Your task to perform on an android device: stop showing notifications on the lock screen Image 0: 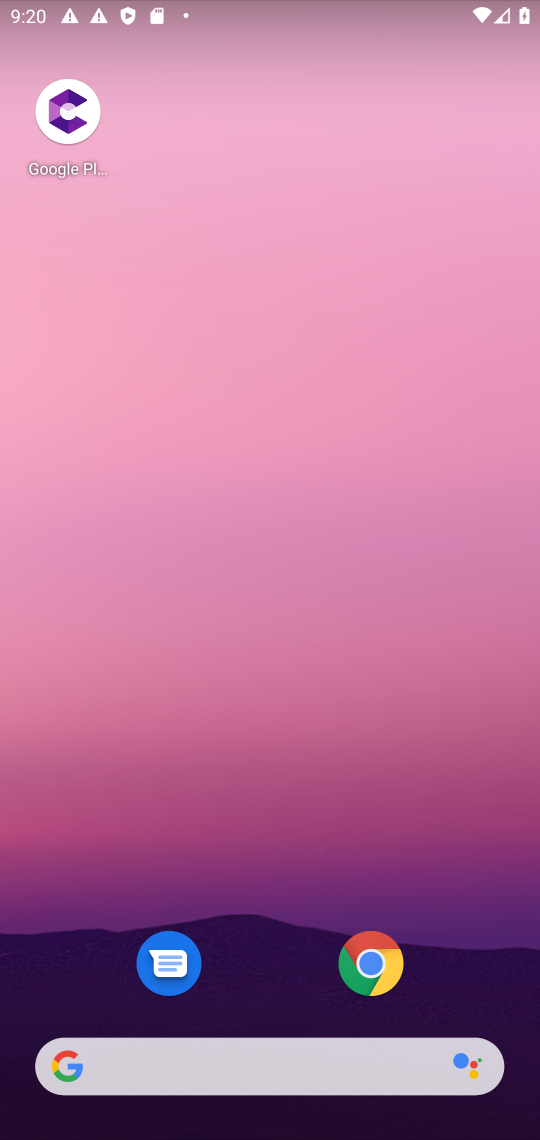
Step 0: drag from (280, 837) to (107, 27)
Your task to perform on an android device: stop showing notifications on the lock screen Image 1: 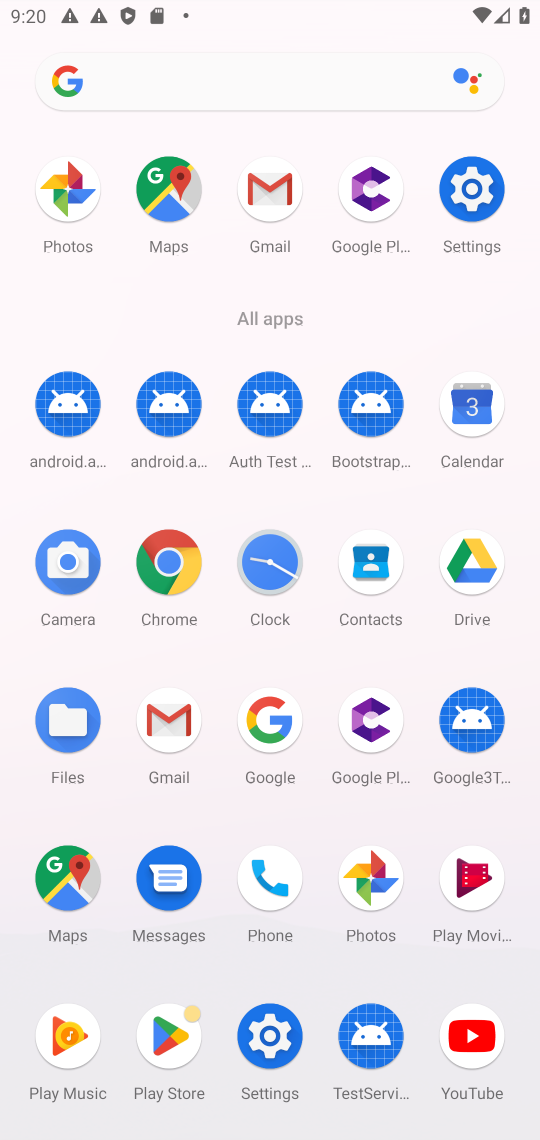
Step 1: click (459, 180)
Your task to perform on an android device: stop showing notifications on the lock screen Image 2: 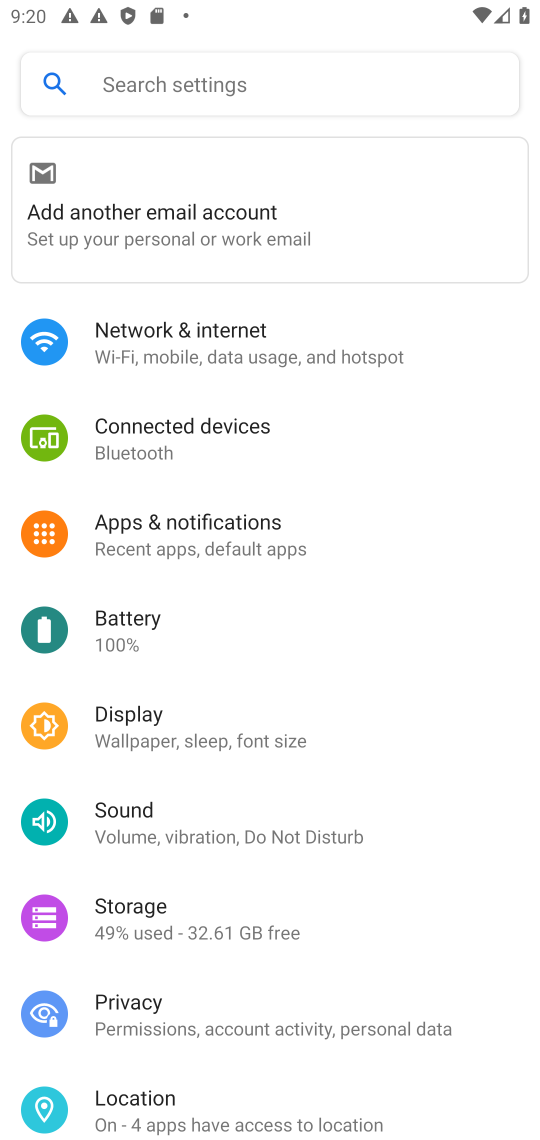
Step 2: click (248, 533)
Your task to perform on an android device: stop showing notifications on the lock screen Image 3: 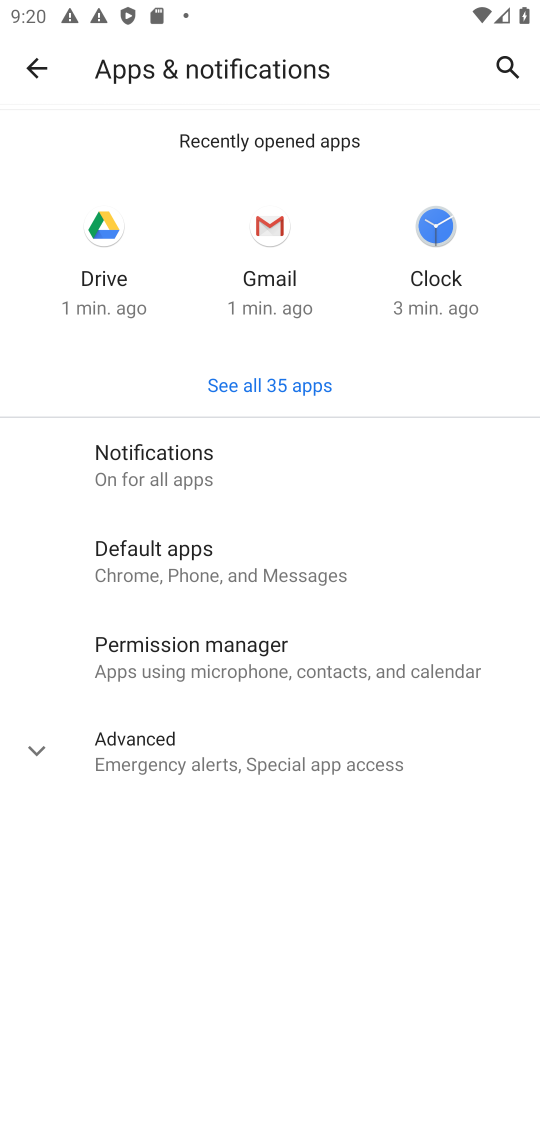
Step 3: click (300, 455)
Your task to perform on an android device: stop showing notifications on the lock screen Image 4: 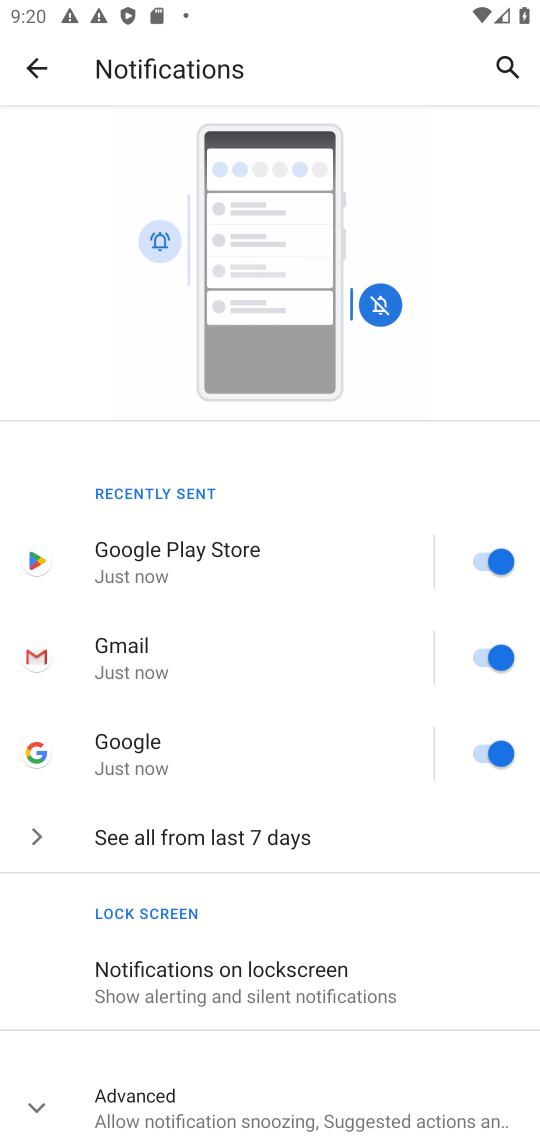
Step 4: click (293, 1014)
Your task to perform on an android device: stop showing notifications on the lock screen Image 5: 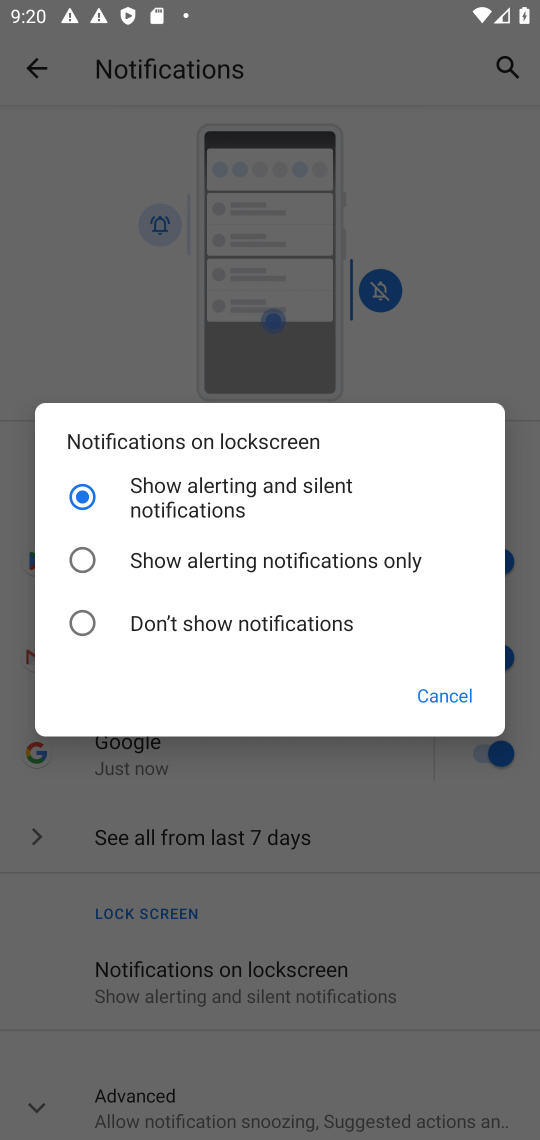
Step 5: click (273, 631)
Your task to perform on an android device: stop showing notifications on the lock screen Image 6: 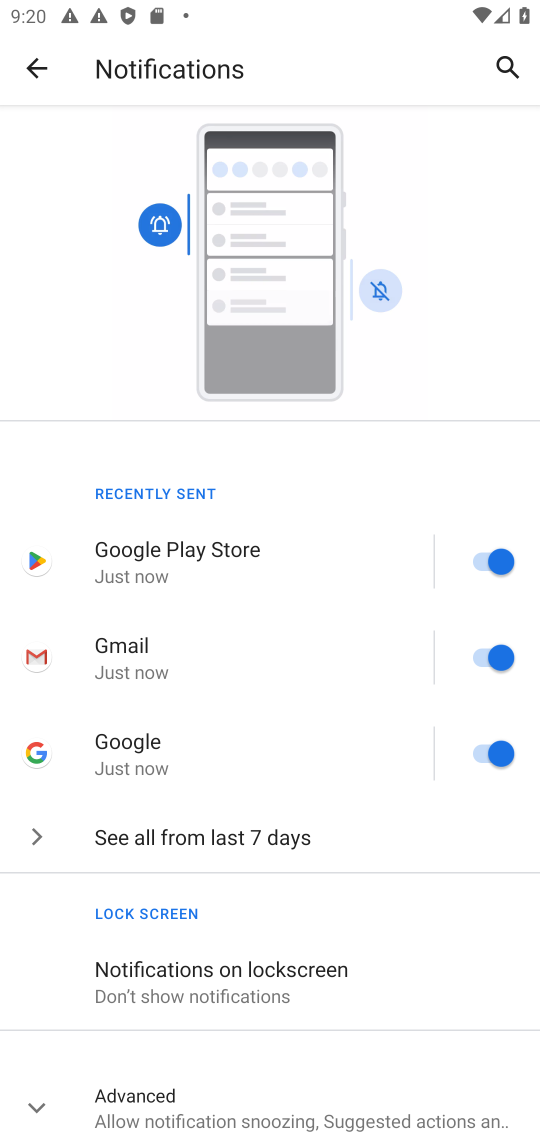
Step 6: task complete